Your task to perform on an android device: turn smart compose on in the gmail app Image 0: 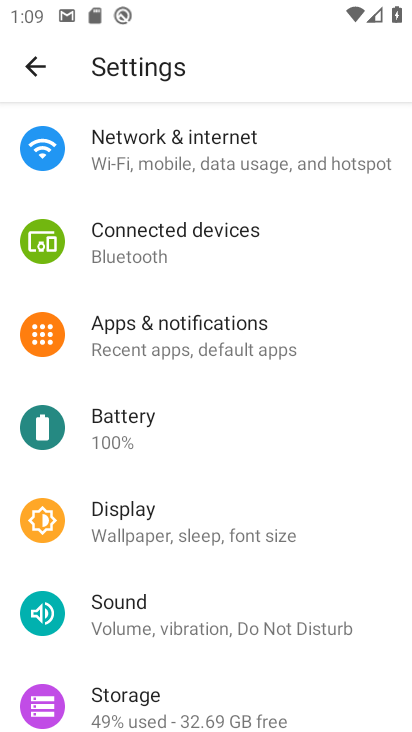
Step 0: press home button
Your task to perform on an android device: turn smart compose on in the gmail app Image 1: 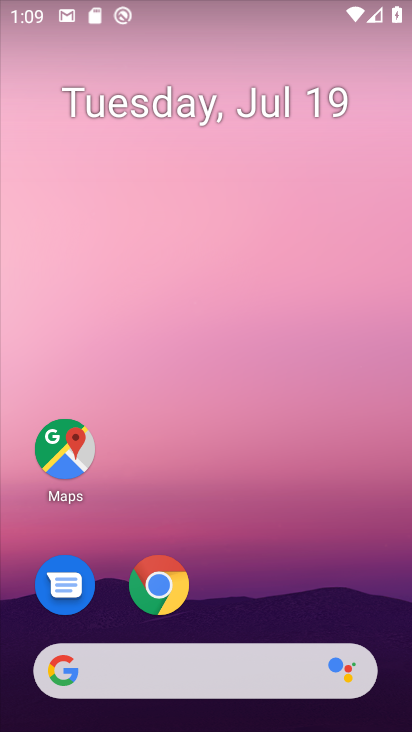
Step 1: drag from (248, 540) to (269, 180)
Your task to perform on an android device: turn smart compose on in the gmail app Image 2: 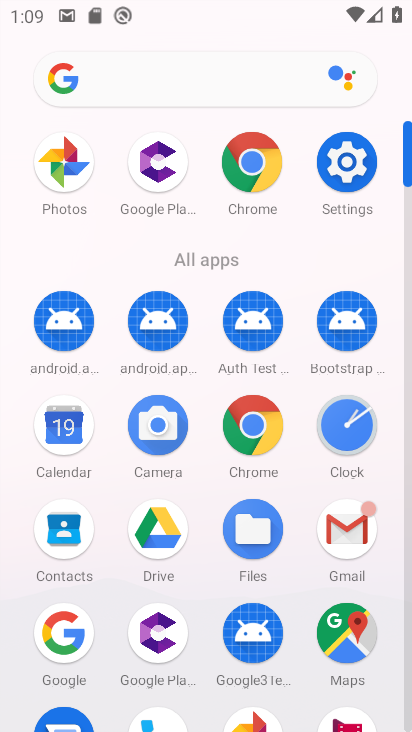
Step 2: click (340, 522)
Your task to perform on an android device: turn smart compose on in the gmail app Image 3: 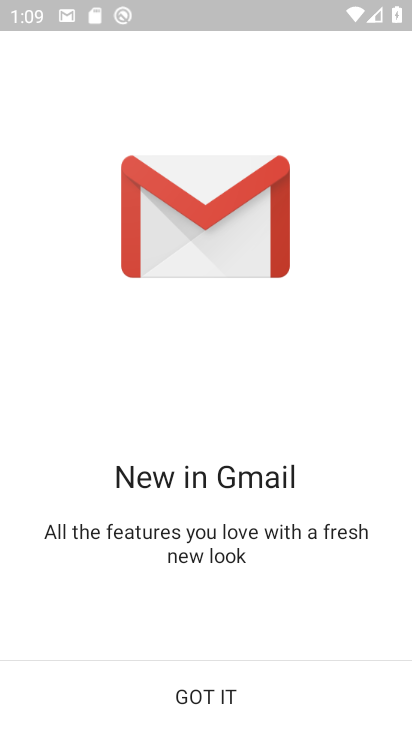
Step 3: click (229, 696)
Your task to perform on an android device: turn smart compose on in the gmail app Image 4: 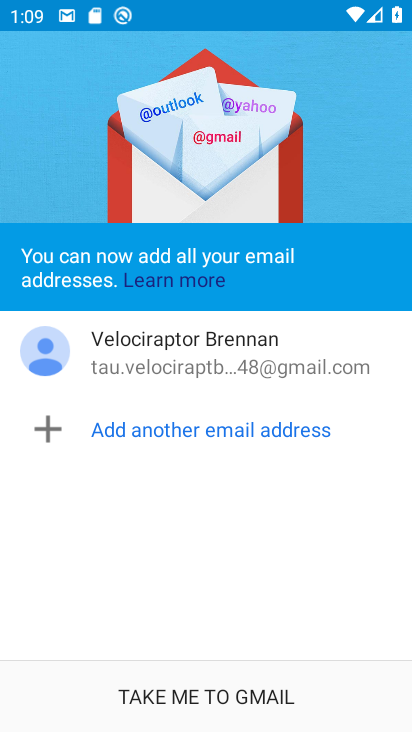
Step 4: click (231, 696)
Your task to perform on an android device: turn smart compose on in the gmail app Image 5: 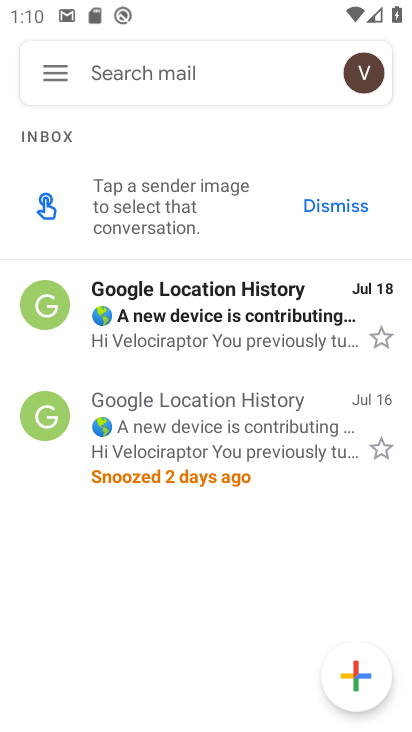
Step 5: click (57, 75)
Your task to perform on an android device: turn smart compose on in the gmail app Image 6: 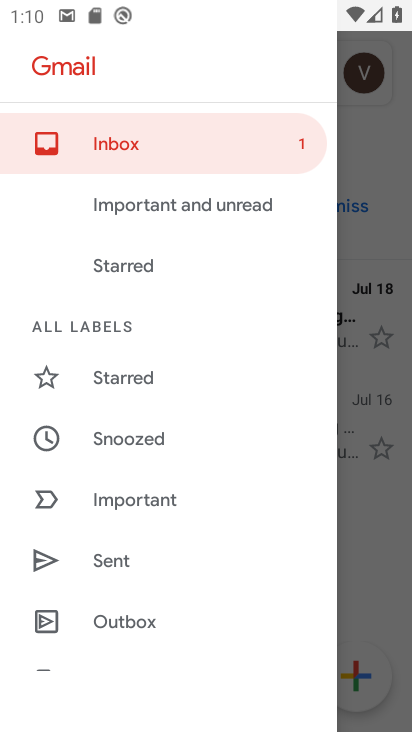
Step 6: drag from (169, 537) to (222, 118)
Your task to perform on an android device: turn smart compose on in the gmail app Image 7: 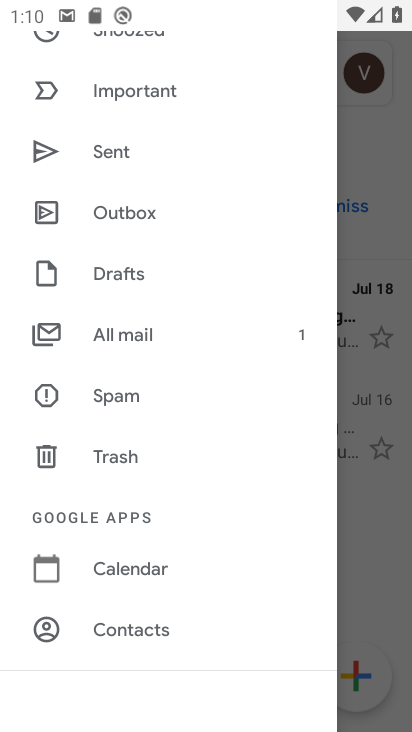
Step 7: drag from (163, 560) to (201, 276)
Your task to perform on an android device: turn smart compose on in the gmail app Image 8: 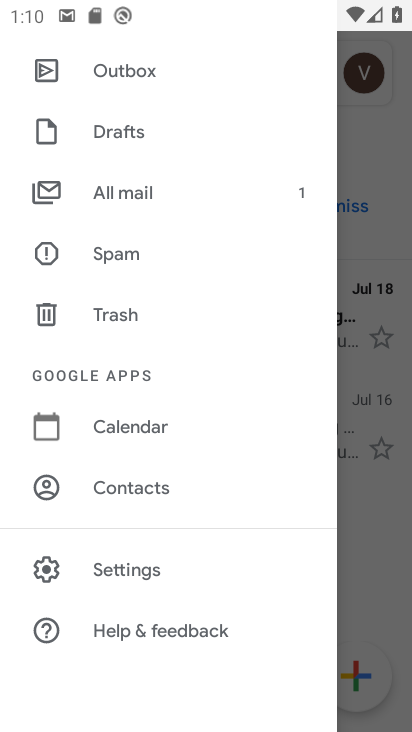
Step 8: click (145, 563)
Your task to perform on an android device: turn smart compose on in the gmail app Image 9: 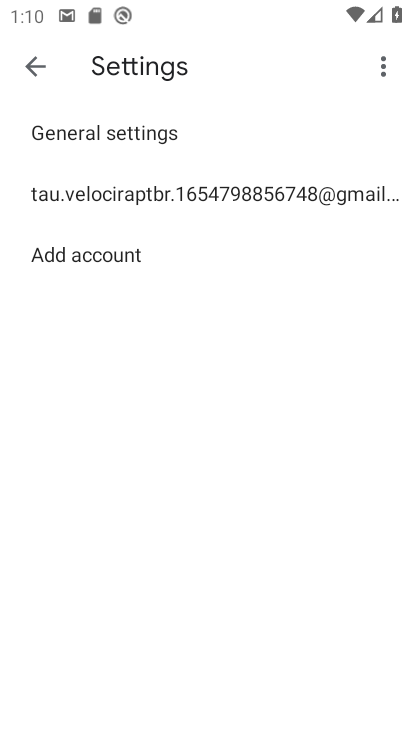
Step 9: click (353, 200)
Your task to perform on an android device: turn smart compose on in the gmail app Image 10: 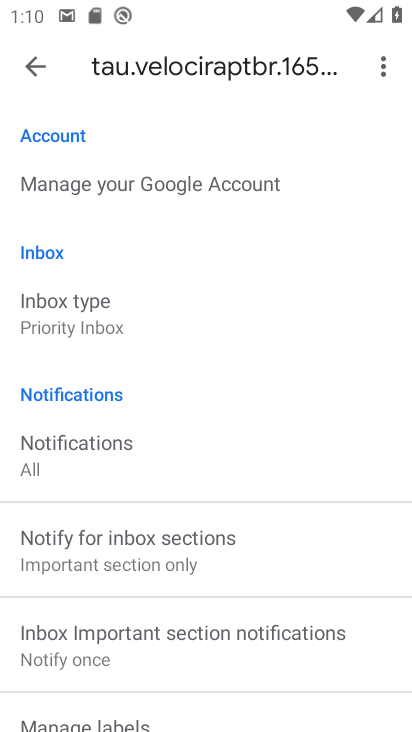
Step 10: task complete